Your task to perform on an android device: clear history in the chrome app Image 0: 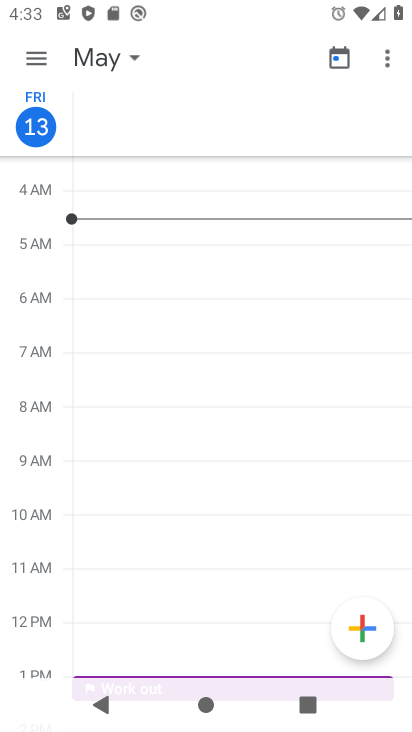
Step 0: press home button
Your task to perform on an android device: clear history in the chrome app Image 1: 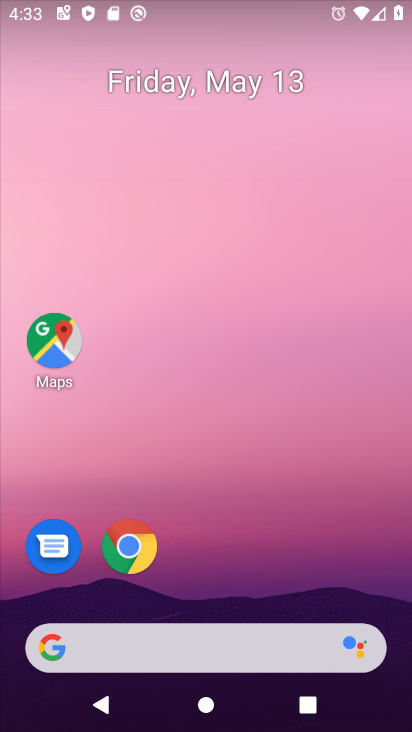
Step 1: drag from (208, 527) to (200, 16)
Your task to perform on an android device: clear history in the chrome app Image 2: 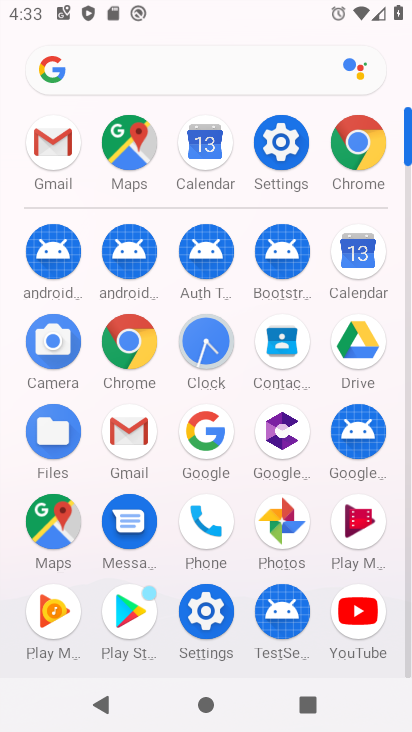
Step 2: click (138, 347)
Your task to perform on an android device: clear history in the chrome app Image 3: 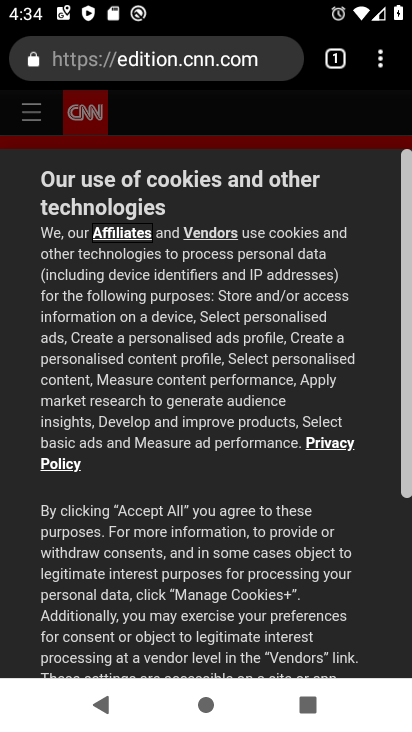
Step 3: click (384, 65)
Your task to perform on an android device: clear history in the chrome app Image 4: 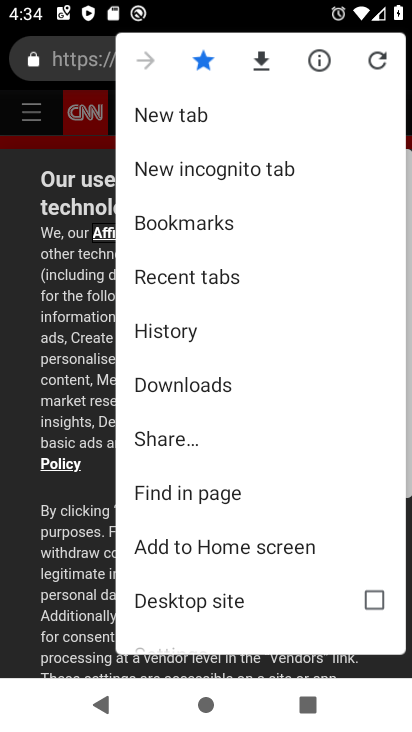
Step 4: drag from (235, 567) to (234, 483)
Your task to perform on an android device: clear history in the chrome app Image 5: 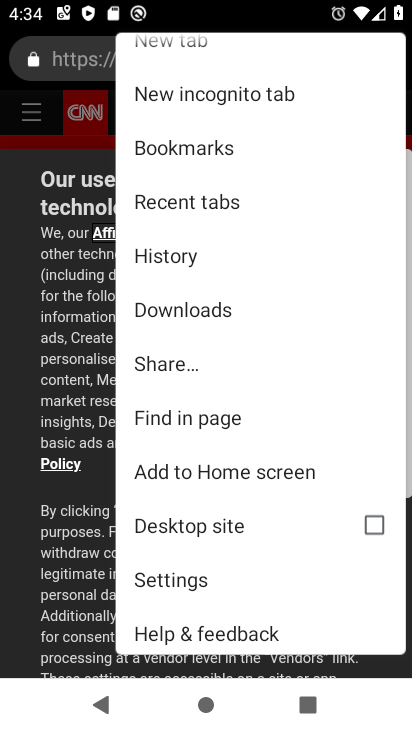
Step 5: click (178, 261)
Your task to perform on an android device: clear history in the chrome app Image 6: 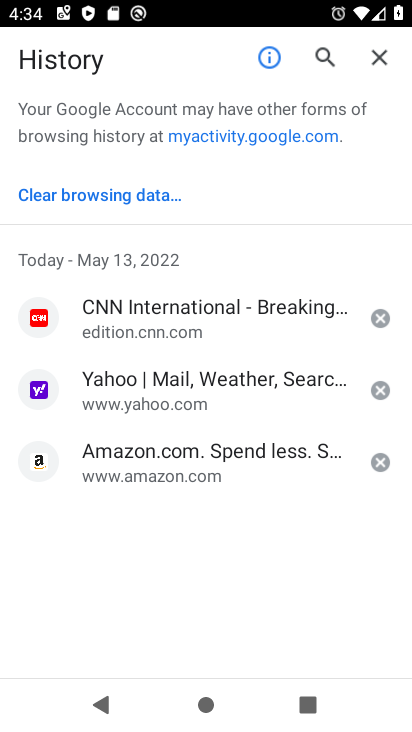
Step 6: click (111, 202)
Your task to perform on an android device: clear history in the chrome app Image 7: 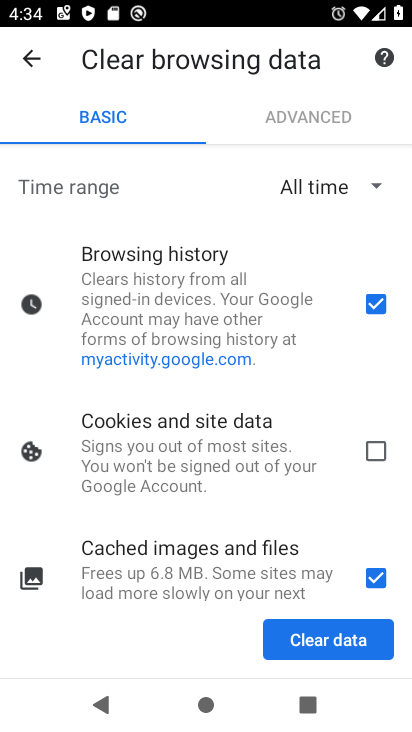
Step 7: click (356, 572)
Your task to perform on an android device: clear history in the chrome app Image 8: 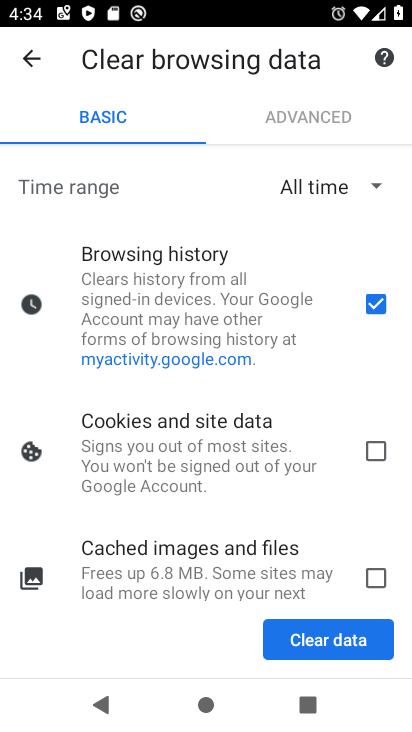
Step 8: click (332, 643)
Your task to perform on an android device: clear history in the chrome app Image 9: 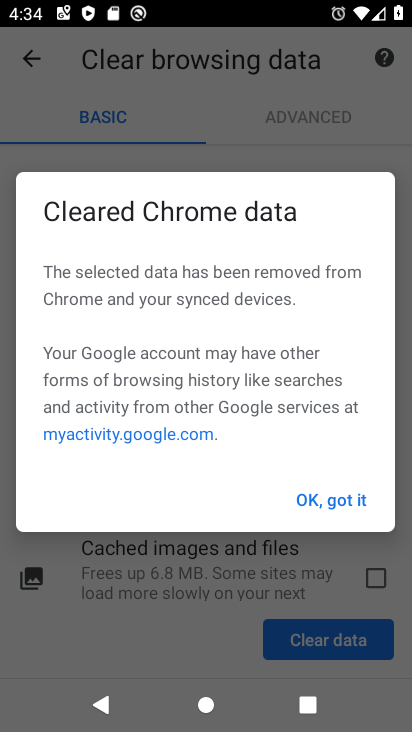
Step 9: click (339, 506)
Your task to perform on an android device: clear history in the chrome app Image 10: 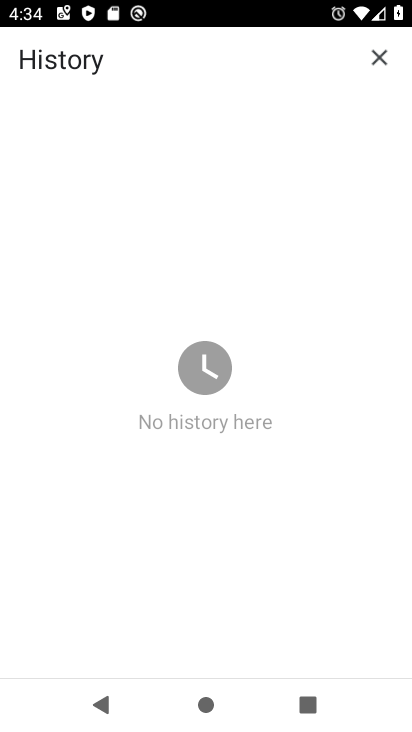
Step 10: task complete